Your task to perform on an android device: star an email in the gmail app Image 0: 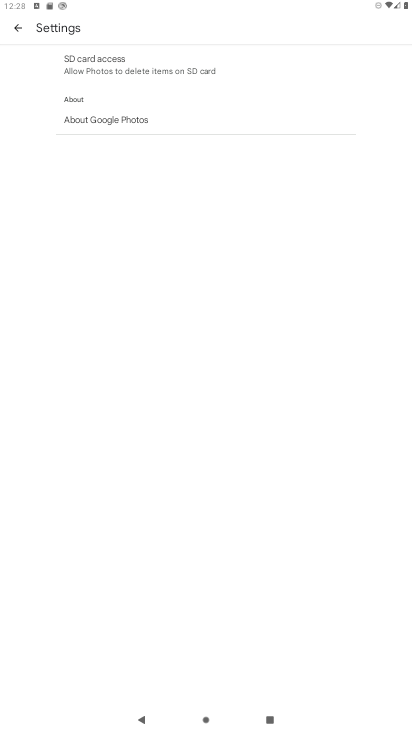
Step 0: press home button
Your task to perform on an android device: star an email in the gmail app Image 1: 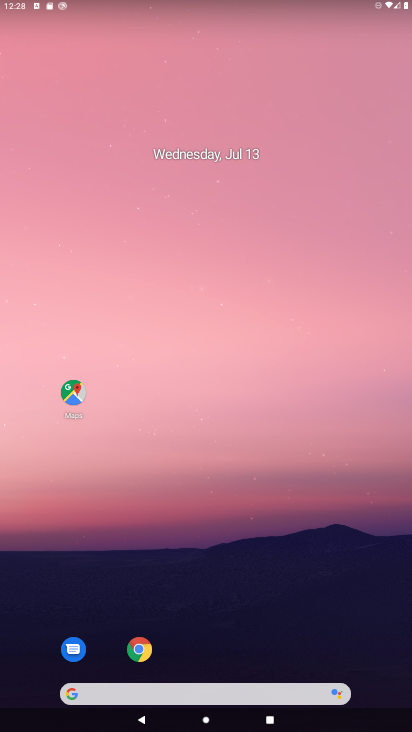
Step 1: drag from (377, 677) to (339, 169)
Your task to perform on an android device: star an email in the gmail app Image 2: 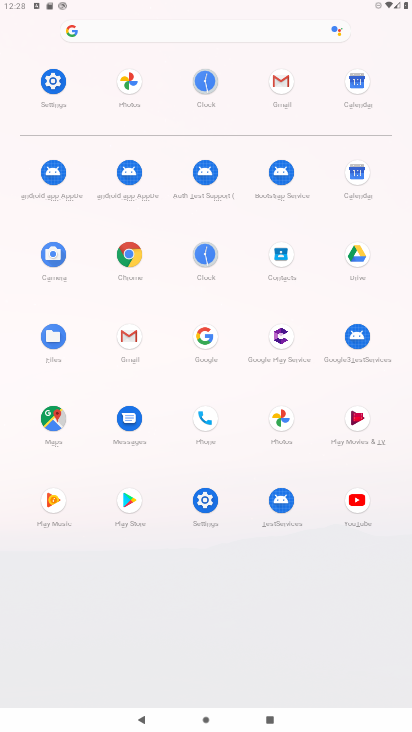
Step 2: click (128, 335)
Your task to perform on an android device: star an email in the gmail app Image 3: 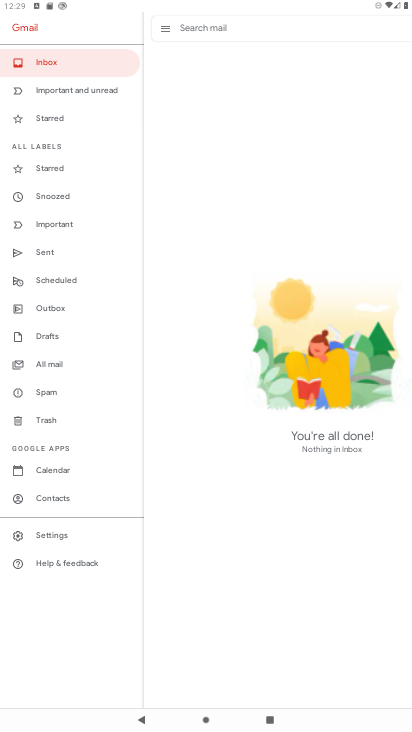
Step 3: click (43, 361)
Your task to perform on an android device: star an email in the gmail app Image 4: 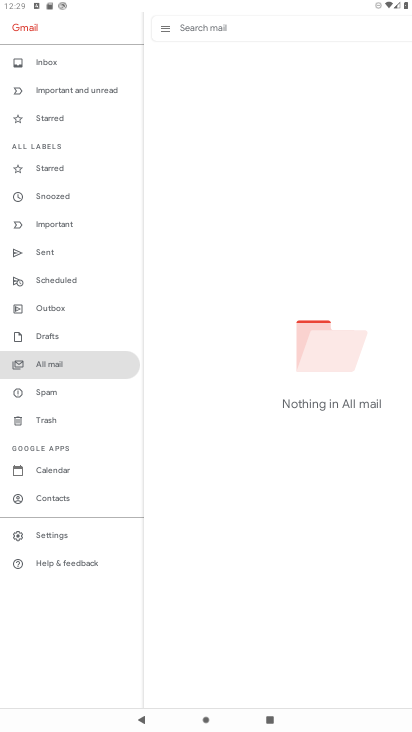
Step 4: task complete